Your task to perform on an android device: Open Google Chrome Image 0: 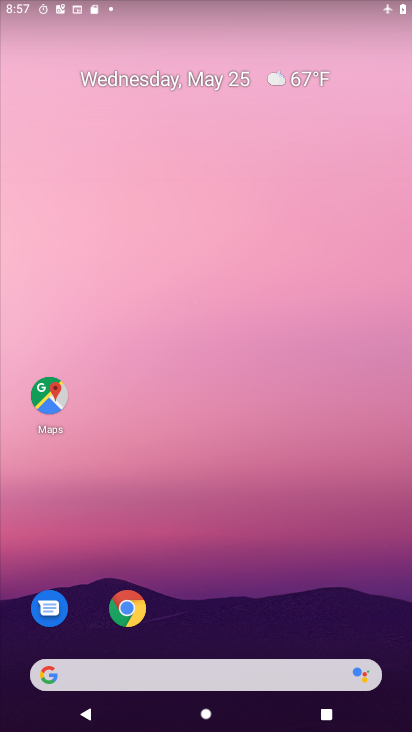
Step 0: drag from (235, 638) to (228, 113)
Your task to perform on an android device: Open Google Chrome Image 1: 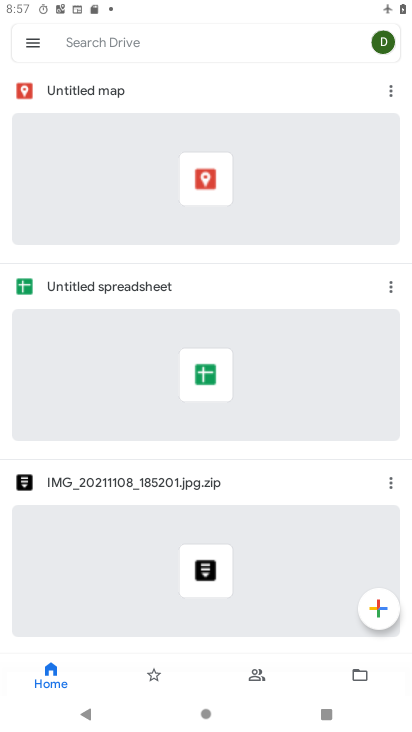
Step 1: press home button
Your task to perform on an android device: Open Google Chrome Image 2: 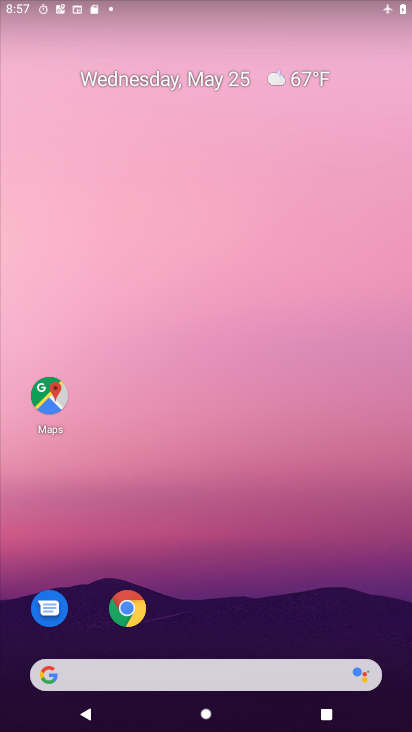
Step 2: click (134, 610)
Your task to perform on an android device: Open Google Chrome Image 3: 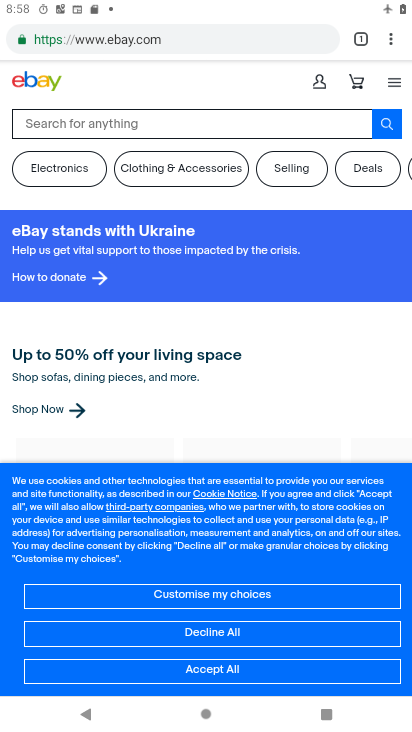
Step 3: task complete